Your task to perform on an android device: show emergency info Image 0: 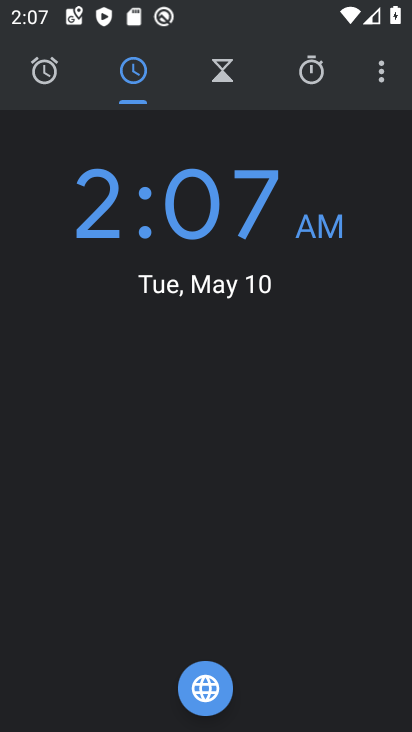
Step 0: press home button
Your task to perform on an android device: show emergency info Image 1: 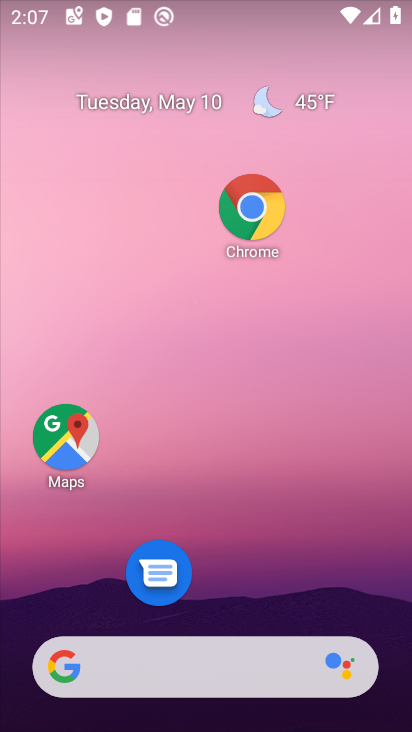
Step 1: drag from (245, 579) to (290, 10)
Your task to perform on an android device: show emergency info Image 2: 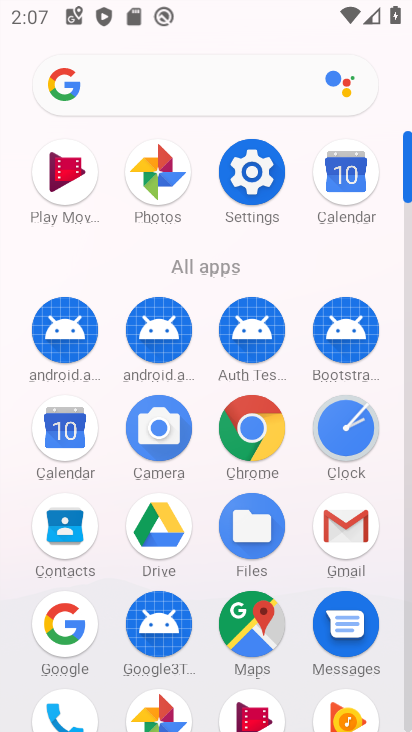
Step 2: click (263, 204)
Your task to perform on an android device: show emergency info Image 3: 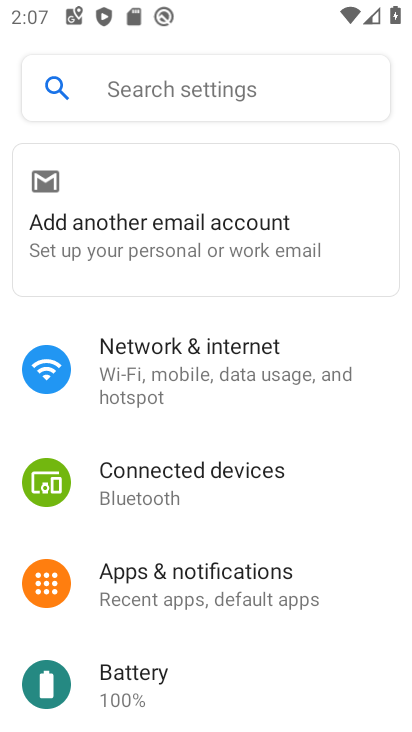
Step 3: drag from (242, 563) to (276, 8)
Your task to perform on an android device: show emergency info Image 4: 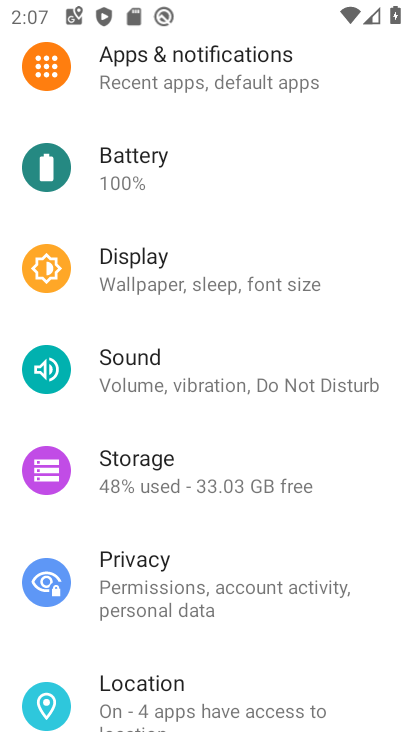
Step 4: drag from (256, 599) to (320, 26)
Your task to perform on an android device: show emergency info Image 5: 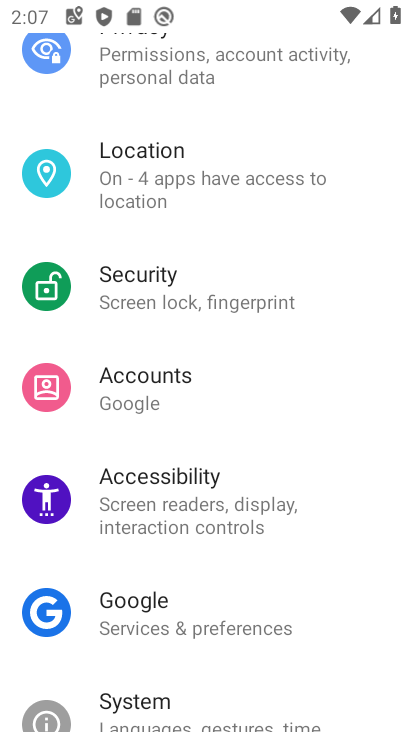
Step 5: drag from (221, 640) to (284, 197)
Your task to perform on an android device: show emergency info Image 6: 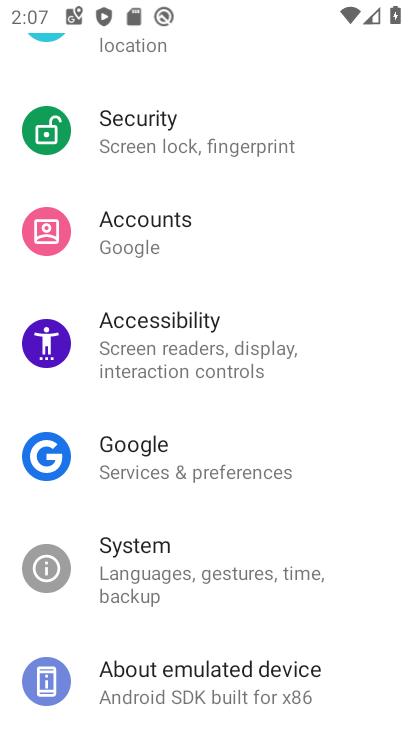
Step 6: drag from (195, 615) to (333, 135)
Your task to perform on an android device: show emergency info Image 7: 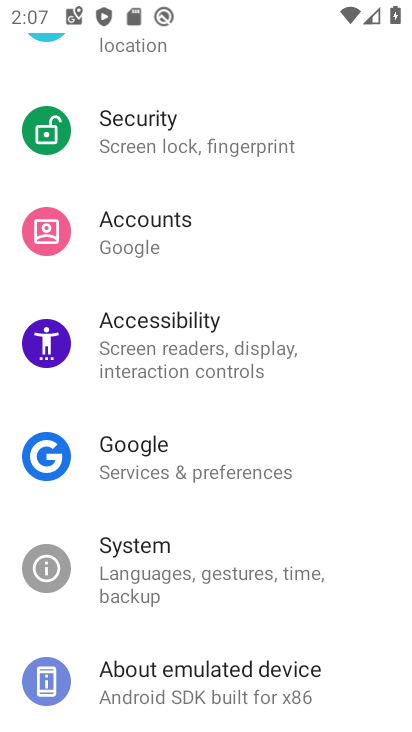
Step 7: click (195, 661)
Your task to perform on an android device: show emergency info Image 8: 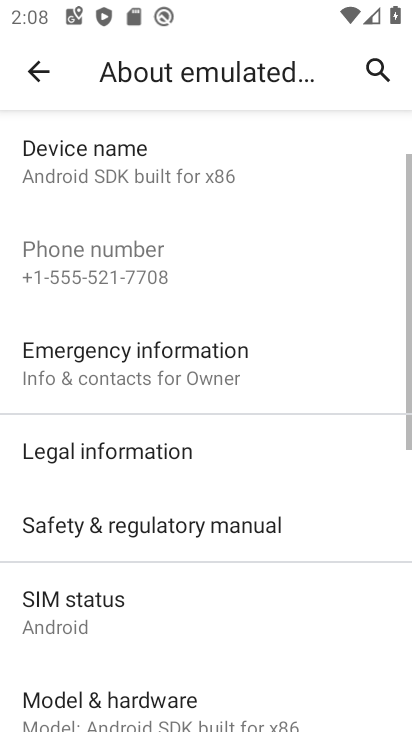
Step 8: click (134, 364)
Your task to perform on an android device: show emergency info Image 9: 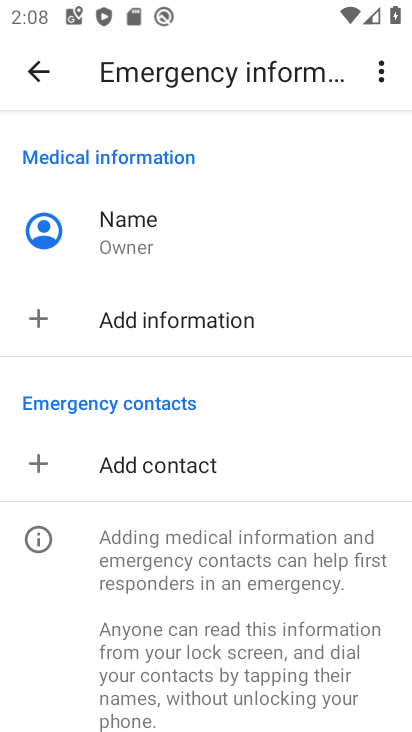
Step 9: task complete